Your task to perform on an android device: Open Chrome and go to the settings page Image 0: 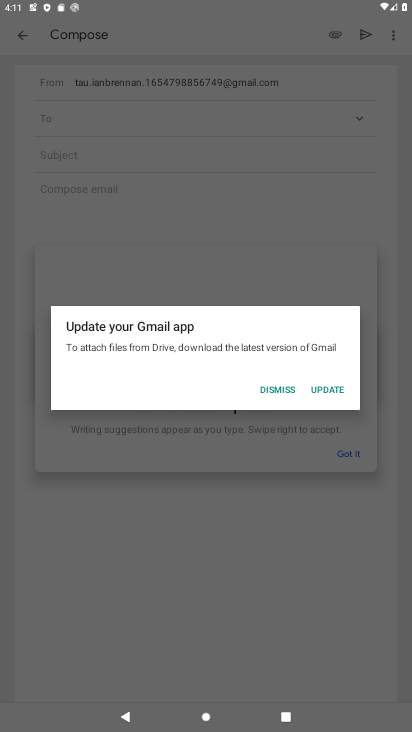
Step 0: press home button
Your task to perform on an android device: Open Chrome and go to the settings page Image 1: 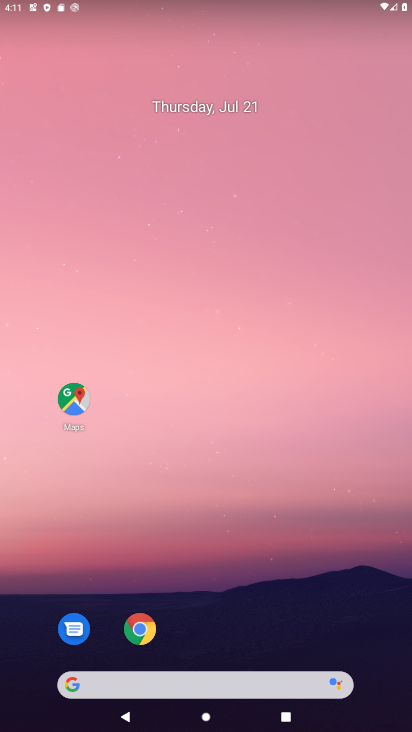
Step 1: drag from (297, 563) to (261, 154)
Your task to perform on an android device: Open Chrome and go to the settings page Image 2: 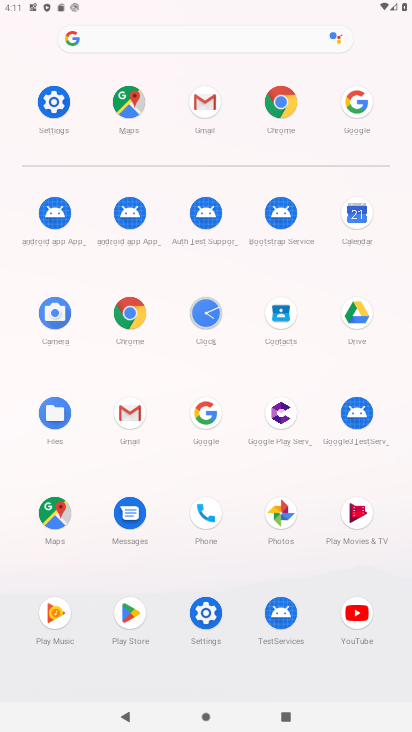
Step 2: click (279, 100)
Your task to perform on an android device: Open Chrome and go to the settings page Image 3: 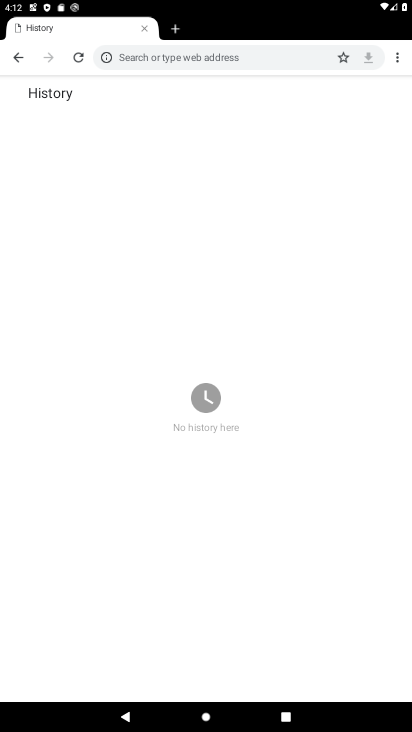
Step 3: task complete